Your task to perform on an android device: turn off priority inbox in the gmail app Image 0: 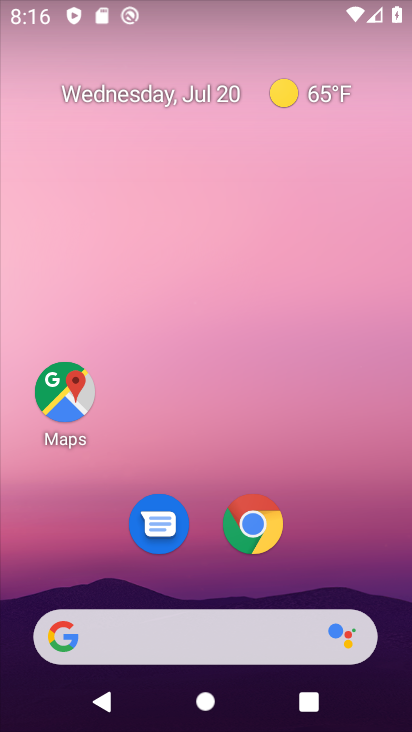
Step 0: drag from (324, 544) to (354, 46)
Your task to perform on an android device: turn off priority inbox in the gmail app Image 1: 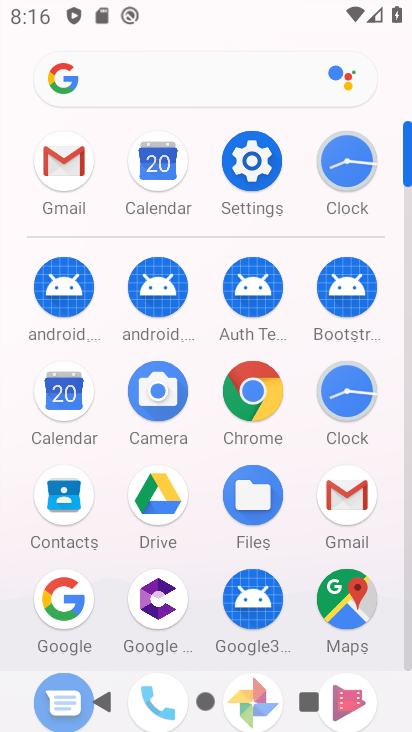
Step 1: click (62, 159)
Your task to perform on an android device: turn off priority inbox in the gmail app Image 2: 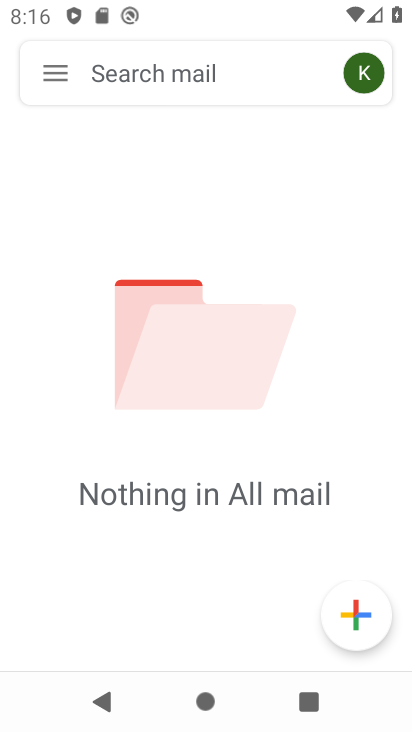
Step 2: click (55, 69)
Your task to perform on an android device: turn off priority inbox in the gmail app Image 3: 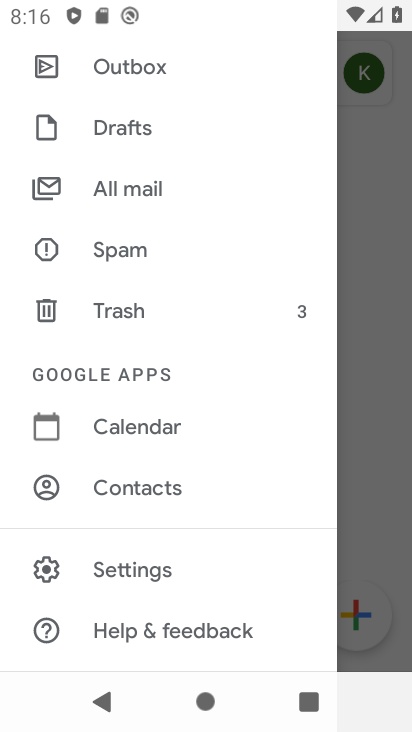
Step 3: click (133, 558)
Your task to perform on an android device: turn off priority inbox in the gmail app Image 4: 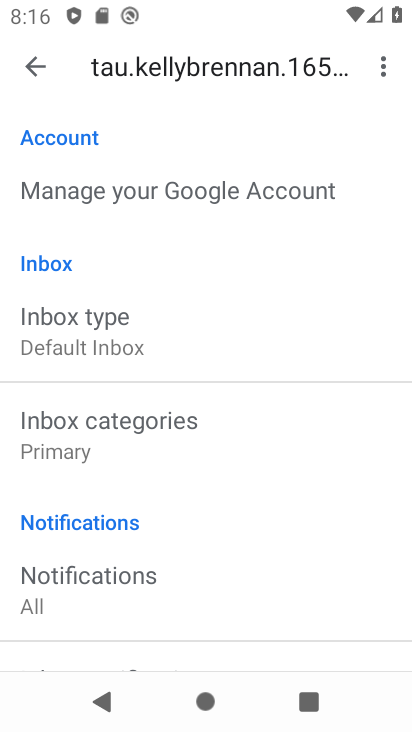
Step 4: click (73, 340)
Your task to perform on an android device: turn off priority inbox in the gmail app Image 5: 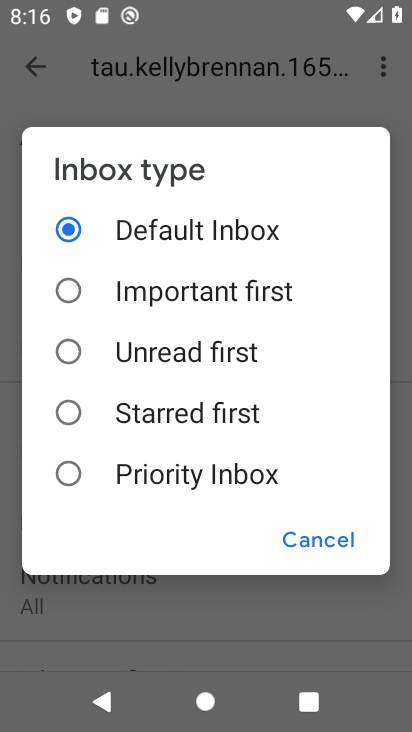
Step 5: click (324, 541)
Your task to perform on an android device: turn off priority inbox in the gmail app Image 6: 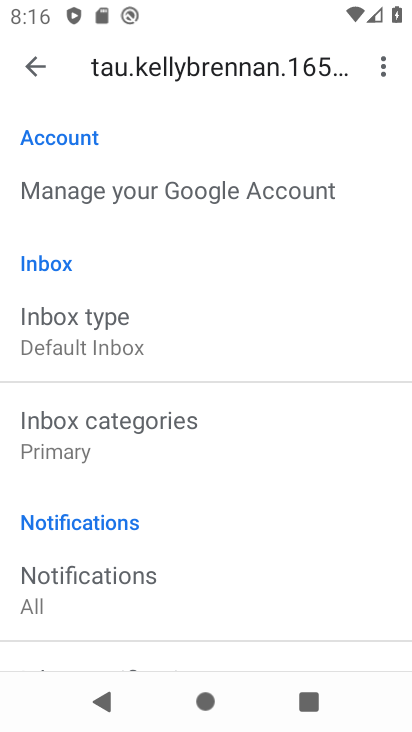
Step 6: task complete